Your task to perform on an android device: remove spam from my inbox in the gmail app Image 0: 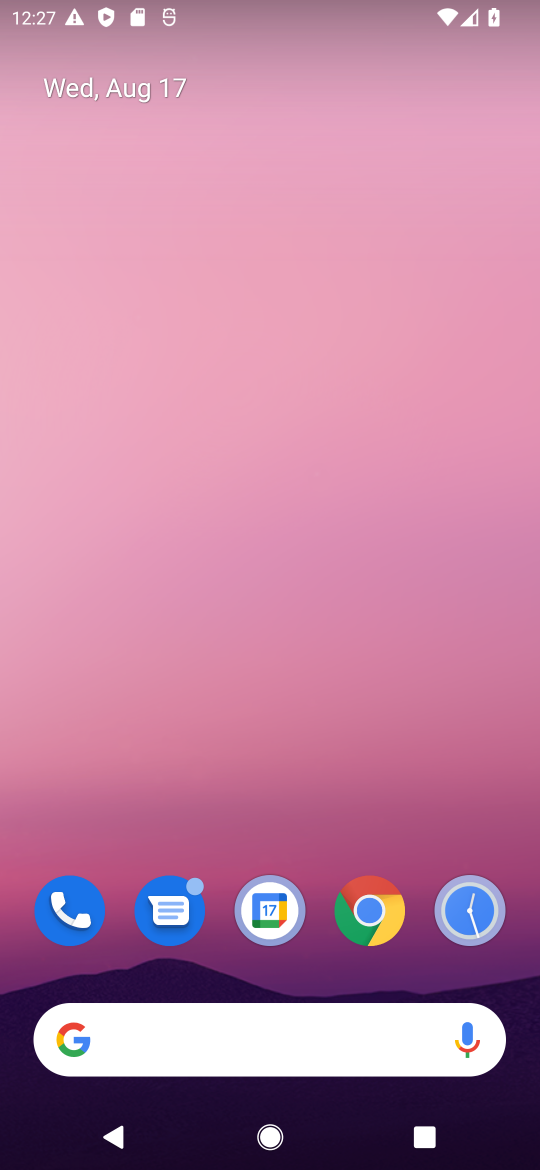
Step 0: drag from (203, 963) to (358, 1)
Your task to perform on an android device: remove spam from my inbox in the gmail app Image 1: 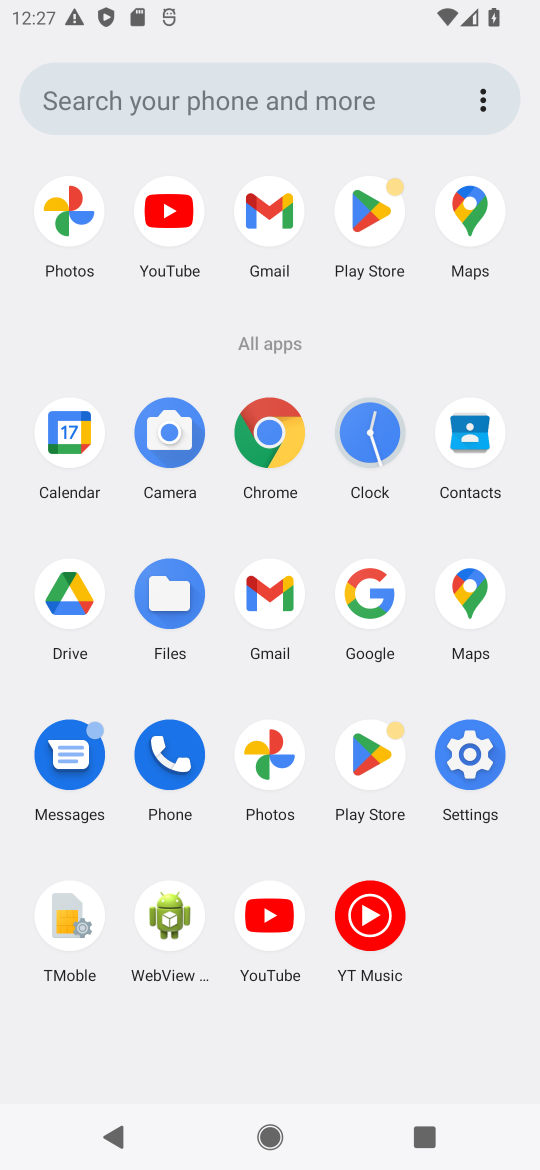
Step 1: click (274, 195)
Your task to perform on an android device: remove spam from my inbox in the gmail app Image 2: 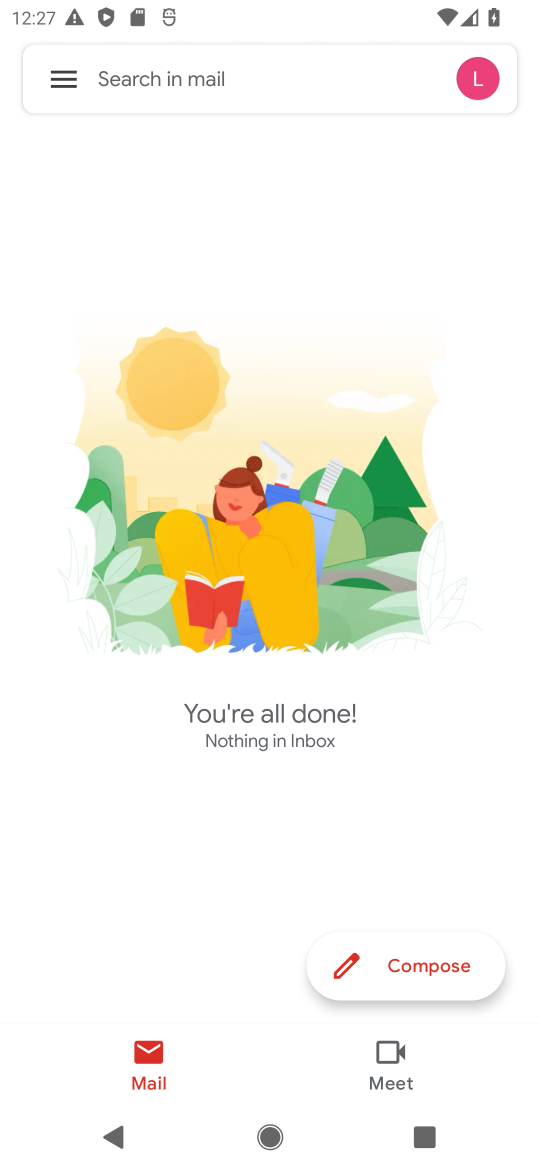
Step 2: click (68, 65)
Your task to perform on an android device: remove spam from my inbox in the gmail app Image 3: 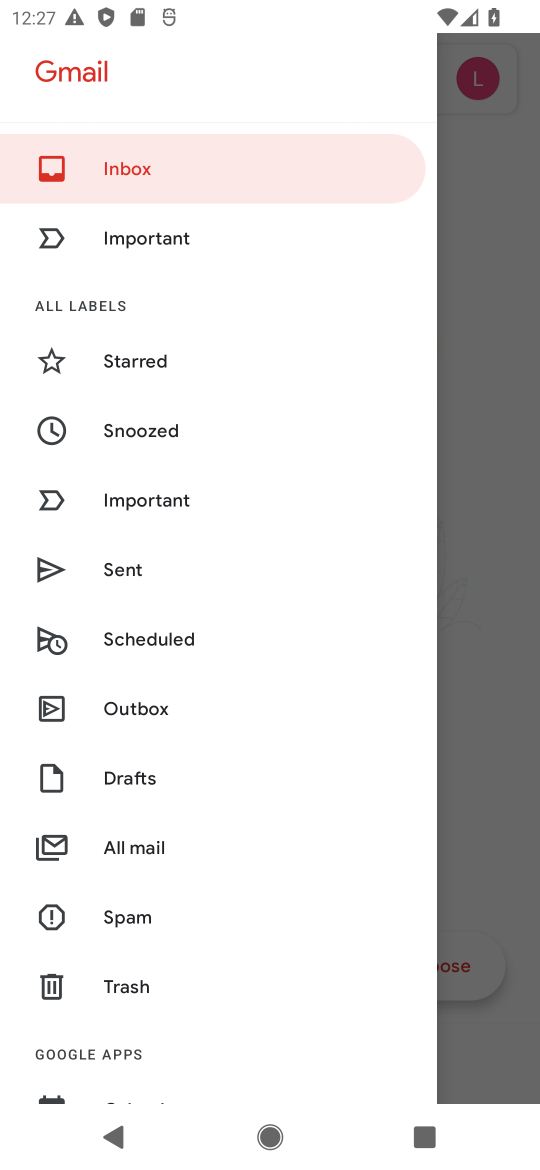
Step 3: click (134, 935)
Your task to perform on an android device: remove spam from my inbox in the gmail app Image 4: 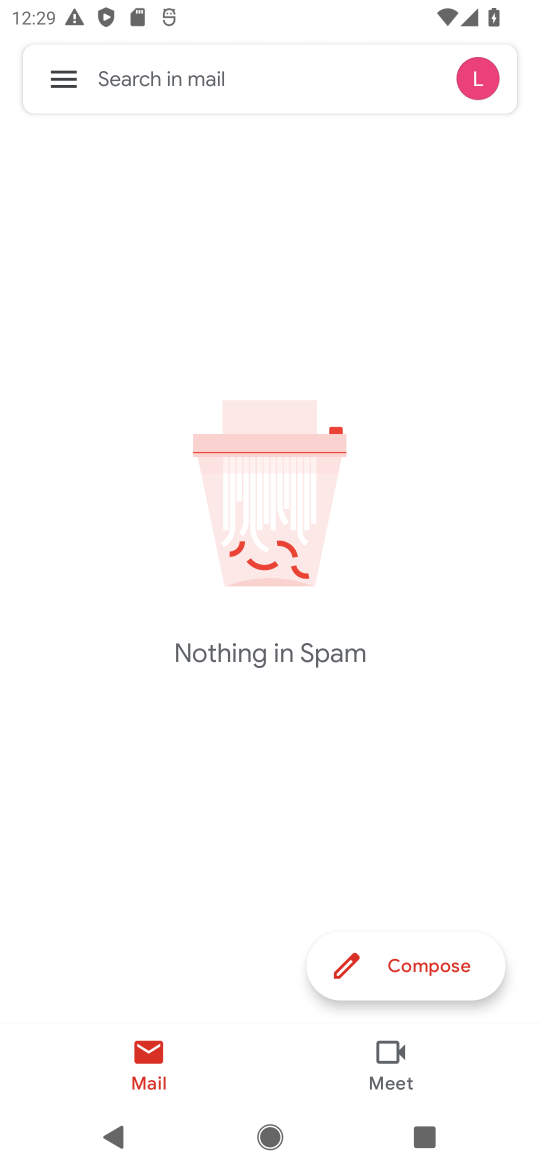
Step 4: task complete